Your task to perform on an android device: change the upload size in google photos Image 0: 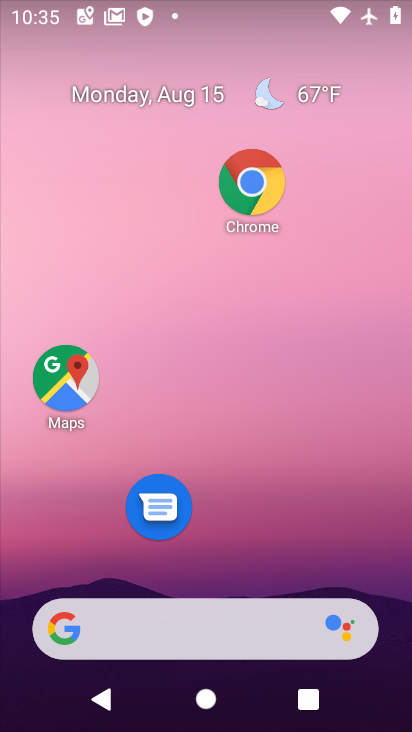
Step 0: drag from (308, 580) to (316, 163)
Your task to perform on an android device: change the upload size in google photos Image 1: 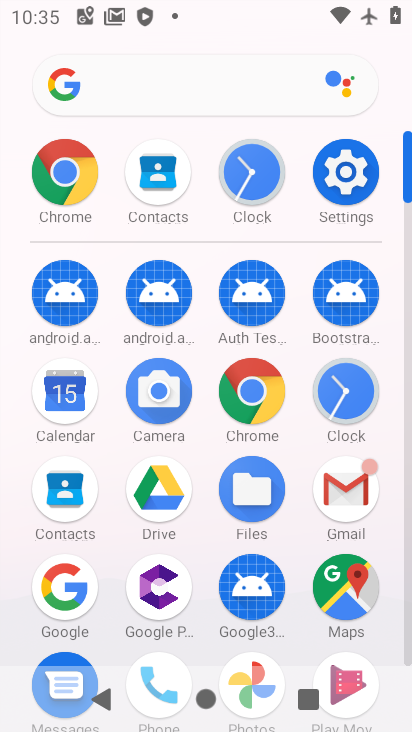
Step 1: click (253, 665)
Your task to perform on an android device: change the upload size in google photos Image 2: 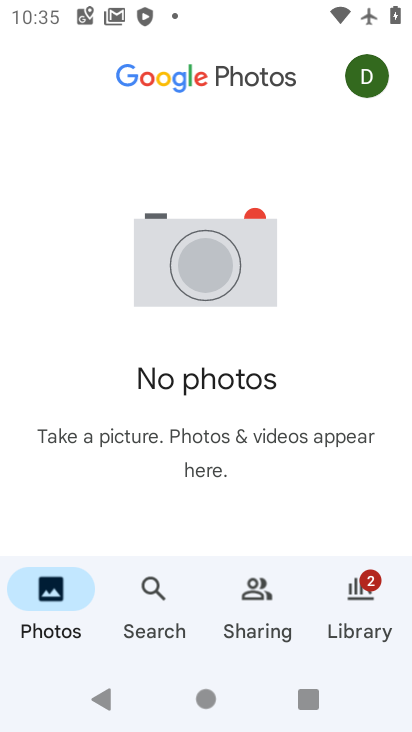
Step 2: click (382, 595)
Your task to perform on an android device: change the upload size in google photos Image 3: 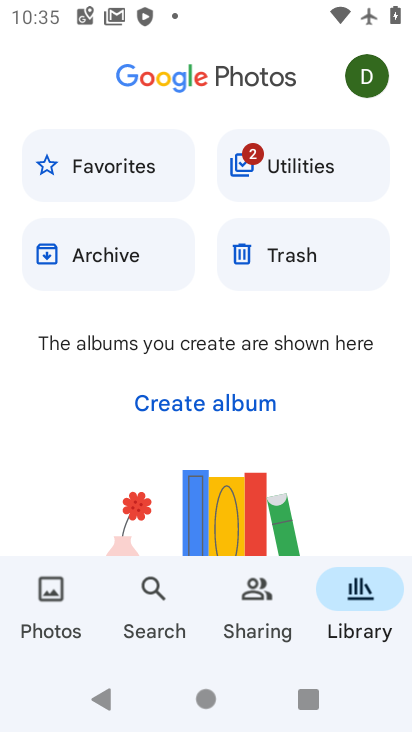
Step 3: task complete